Your task to perform on an android device: Open ESPN.com Image 0: 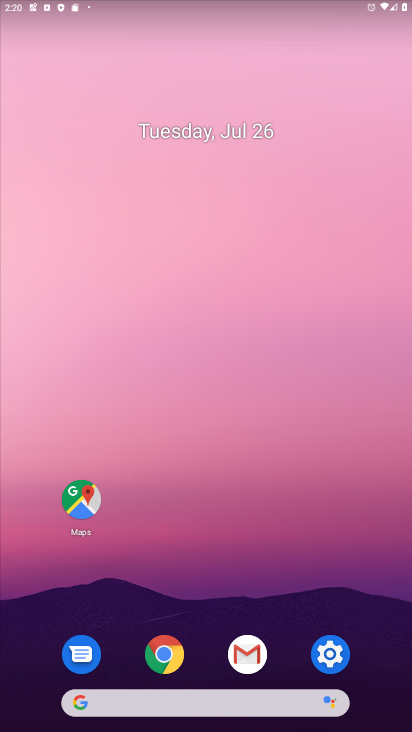
Step 0: click (155, 656)
Your task to perform on an android device: Open ESPN.com Image 1: 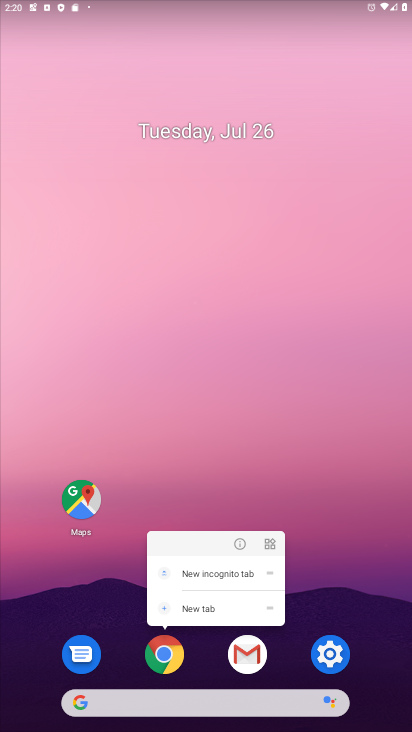
Step 1: click (165, 646)
Your task to perform on an android device: Open ESPN.com Image 2: 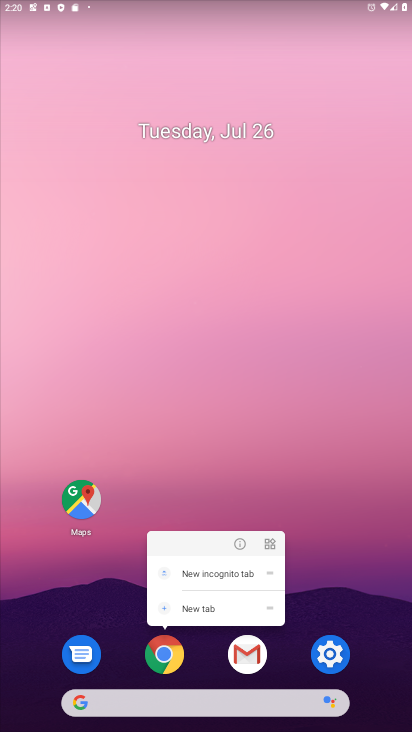
Step 2: click (164, 661)
Your task to perform on an android device: Open ESPN.com Image 3: 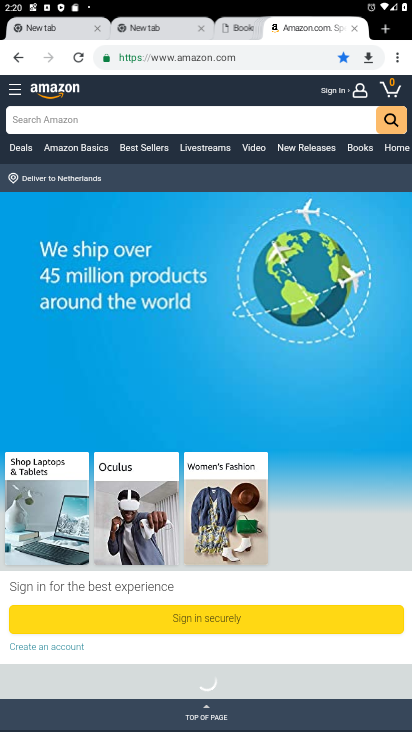
Step 3: click (130, 31)
Your task to perform on an android device: Open ESPN.com Image 4: 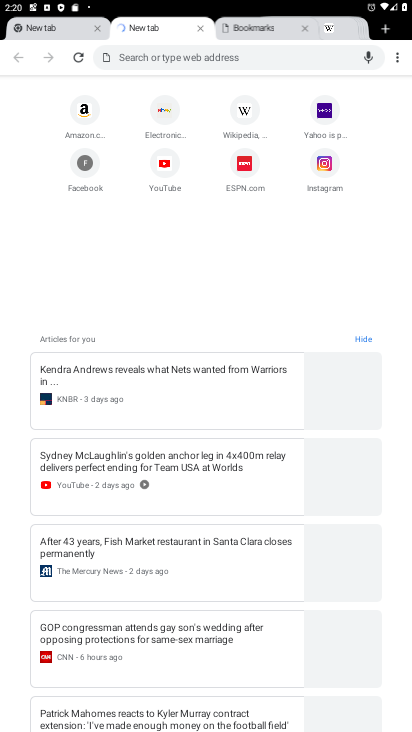
Step 4: click (134, 28)
Your task to perform on an android device: Open ESPN.com Image 5: 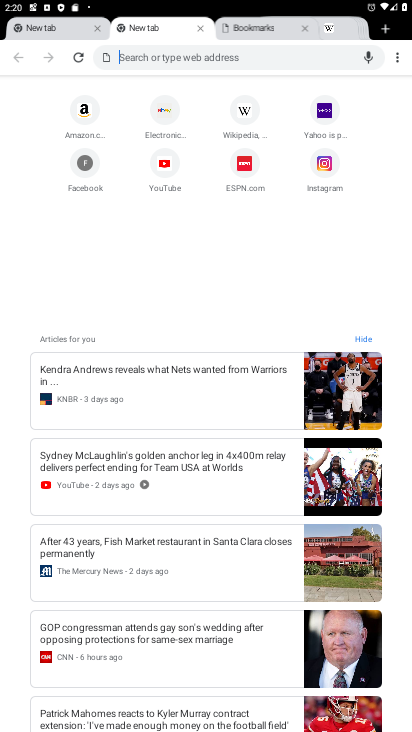
Step 5: click (242, 167)
Your task to perform on an android device: Open ESPN.com Image 6: 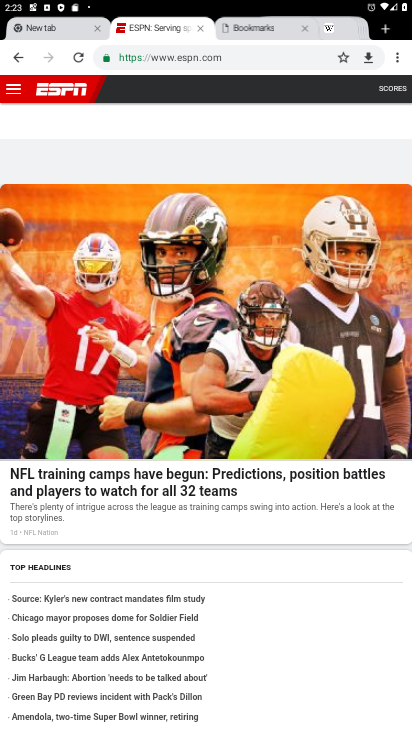
Step 6: task complete